Your task to perform on an android device: Open Chrome and go to the settings page Image 0: 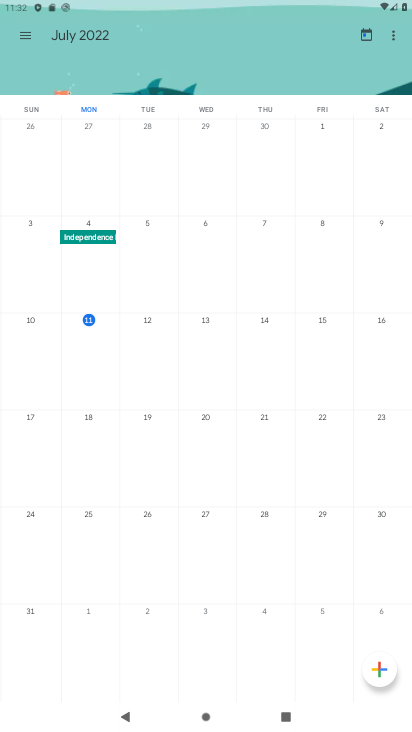
Step 0: drag from (340, 618) to (375, 512)
Your task to perform on an android device: Open Chrome and go to the settings page Image 1: 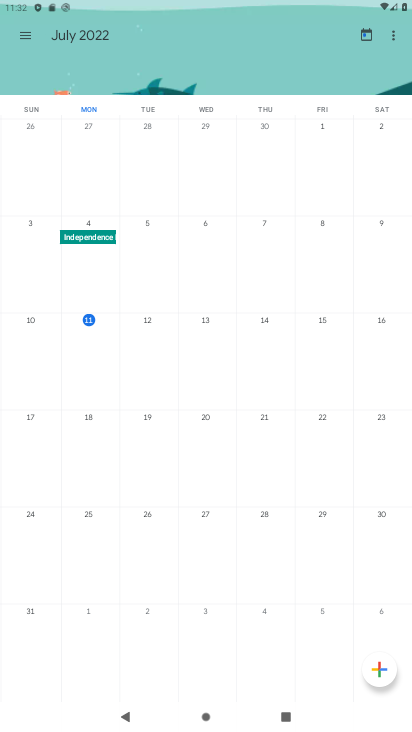
Step 1: press home button
Your task to perform on an android device: Open Chrome and go to the settings page Image 2: 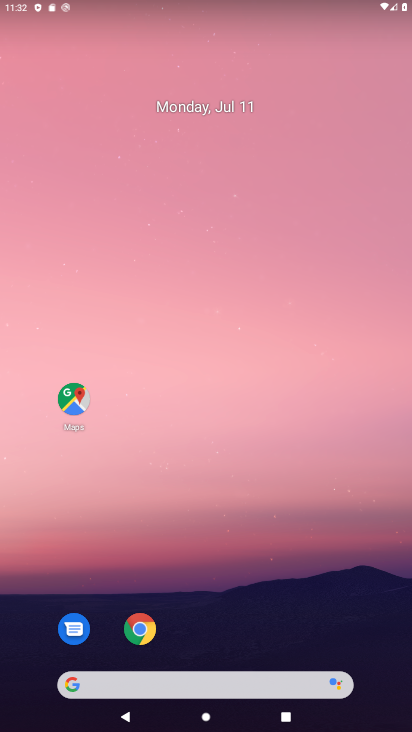
Step 2: drag from (343, 616) to (359, 204)
Your task to perform on an android device: Open Chrome and go to the settings page Image 3: 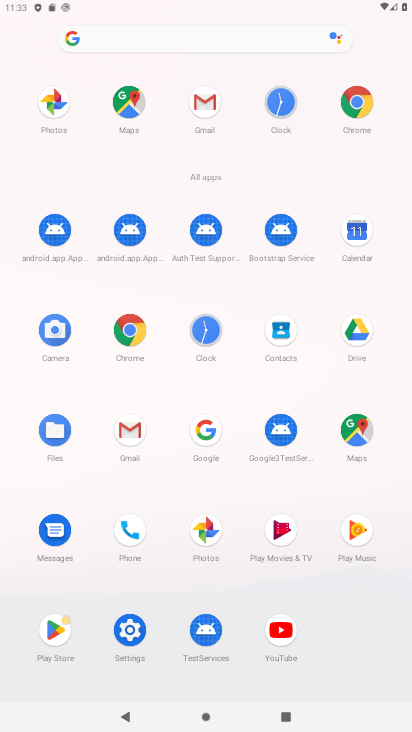
Step 3: click (134, 330)
Your task to perform on an android device: Open Chrome and go to the settings page Image 4: 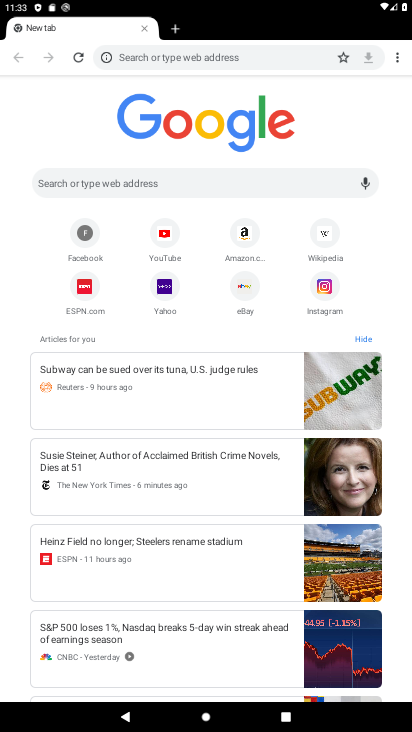
Step 4: click (394, 58)
Your task to perform on an android device: Open Chrome and go to the settings page Image 5: 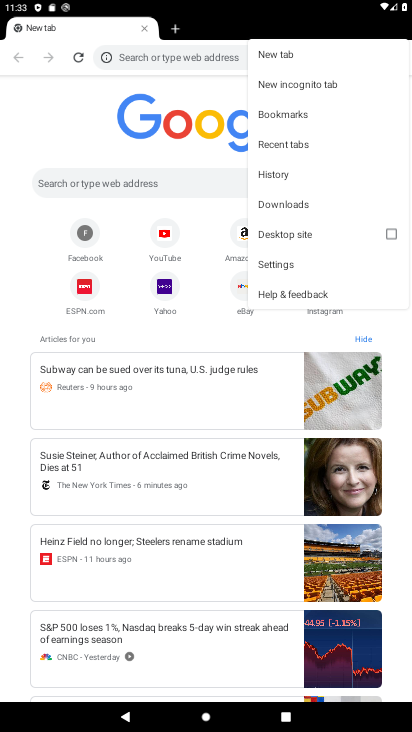
Step 5: click (308, 262)
Your task to perform on an android device: Open Chrome and go to the settings page Image 6: 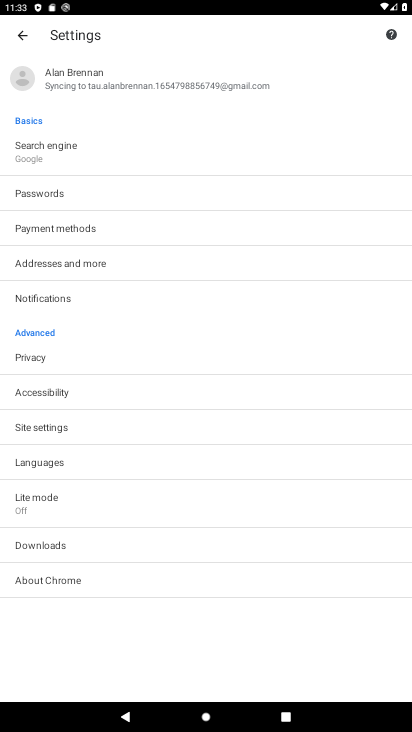
Step 6: task complete